Your task to perform on an android device: What is the speed of a plane? Image 0: 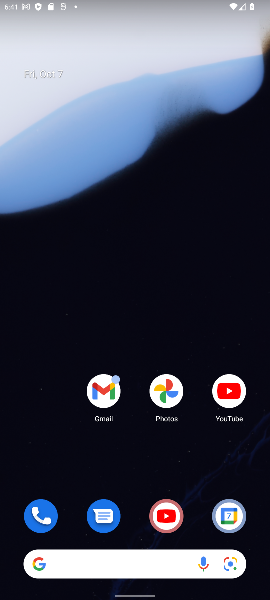
Step 0: click (128, 570)
Your task to perform on an android device: What is the speed of a plane? Image 1: 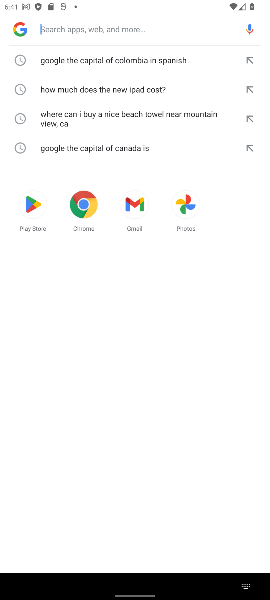
Step 1: type "What is the speed of a plane?"
Your task to perform on an android device: What is the speed of a plane? Image 2: 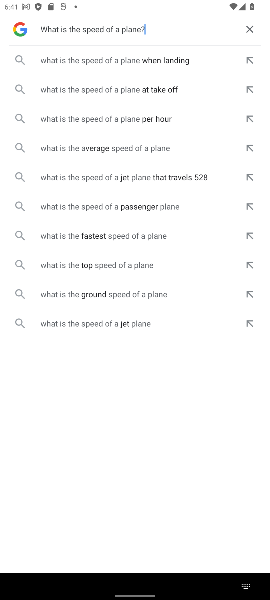
Step 2: click (86, 56)
Your task to perform on an android device: What is the speed of a plane? Image 3: 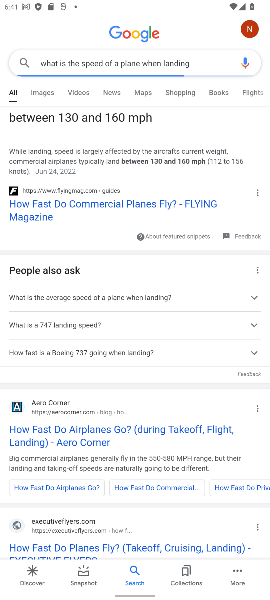
Step 3: task complete